Your task to perform on an android device: check google app version Image 0: 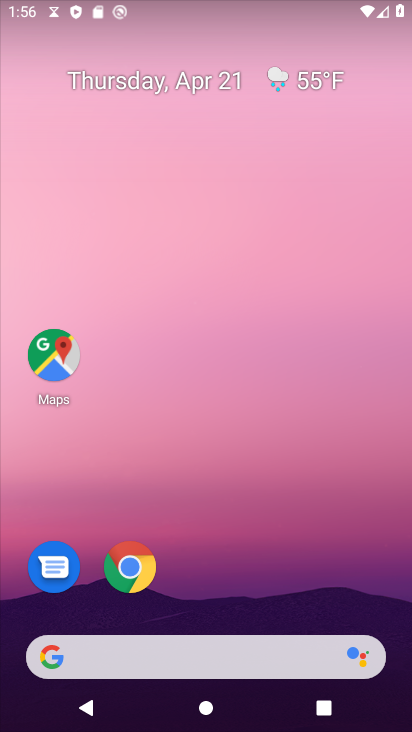
Step 0: drag from (173, 651) to (297, 33)
Your task to perform on an android device: check google app version Image 1: 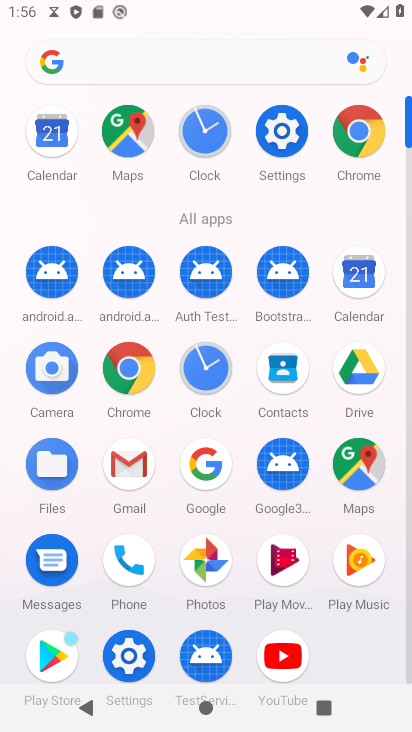
Step 1: click (208, 474)
Your task to perform on an android device: check google app version Image 2: 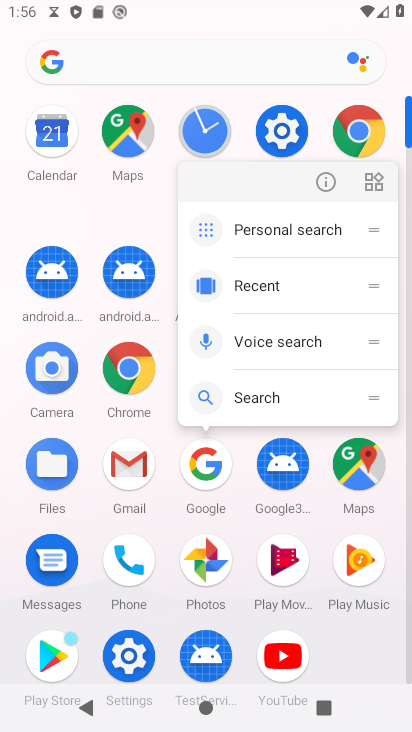
Step 2: click (325, 181)
Your task to perform on an android device: check google app version Image 3: 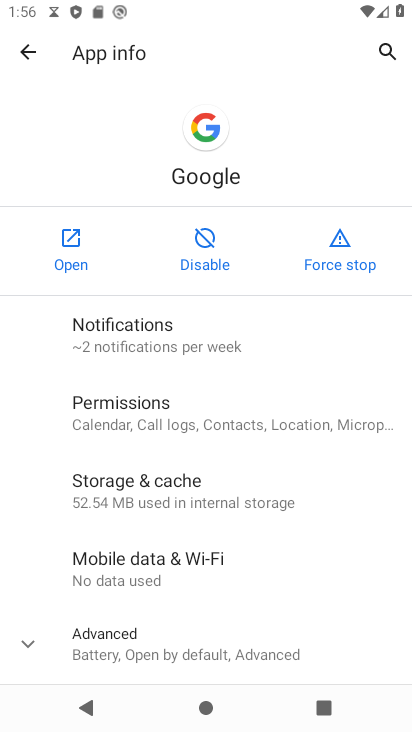
Step 3: drag from (217, 573) to (319, 217)
Your task to perform on an android device: check google app version Image 4: 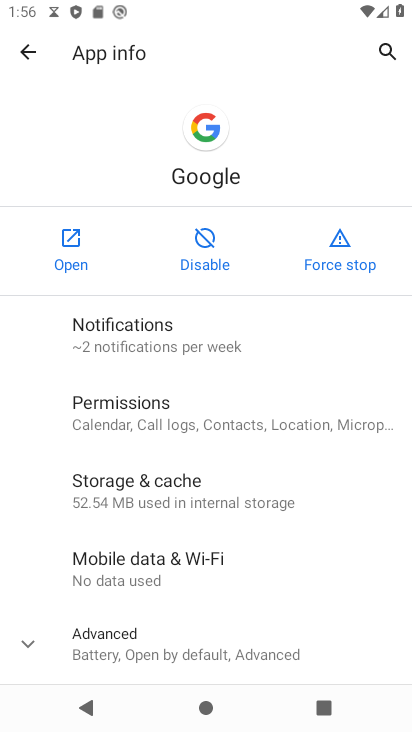
Step 4: click (128, 644)
Your task to perform on an android device: check google app version Image 5: 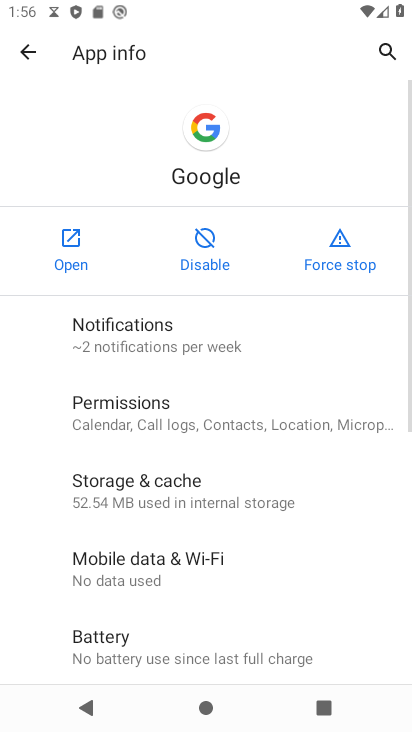
Step 5: task complete